Your task to perform on an android device: When is my next meeting? Image 0: 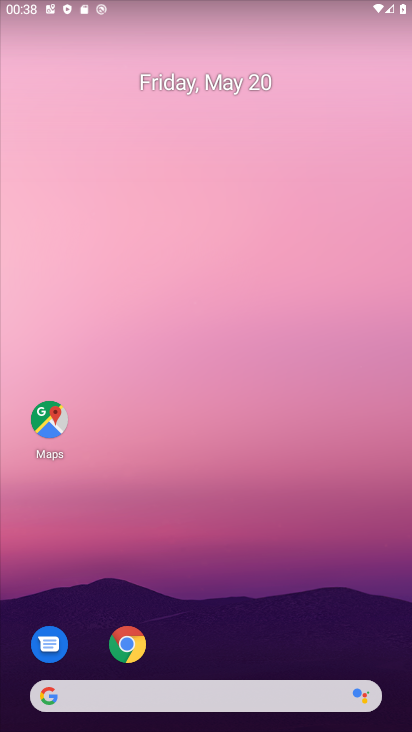
Step 0: drag from (306, 652) to (306, 56)
Your task to perform on an android device: When is my next meeting? Image 1: 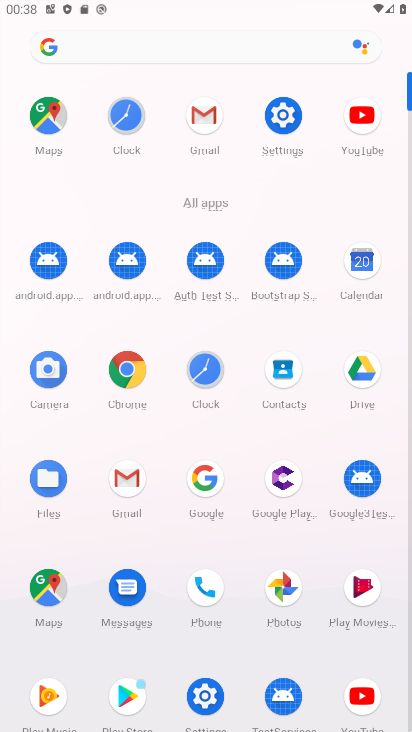
Step 1: click (353, 262)
Your task to perform on an android device: When is my next meeting? Image 2: 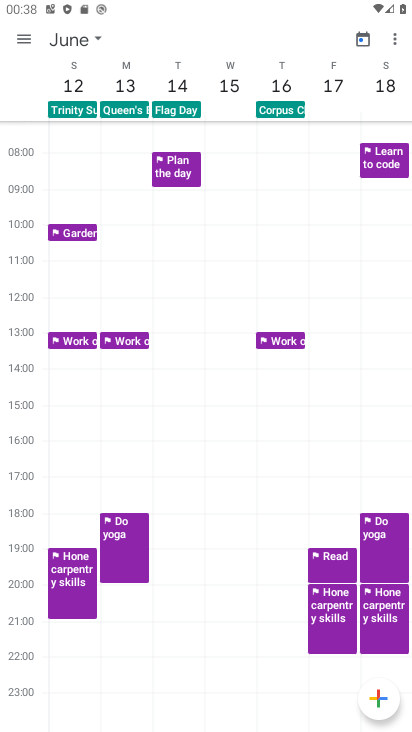
Step 2: click (364, 43)
Your task to perform on an android device: When is my next meeting? Image 3: 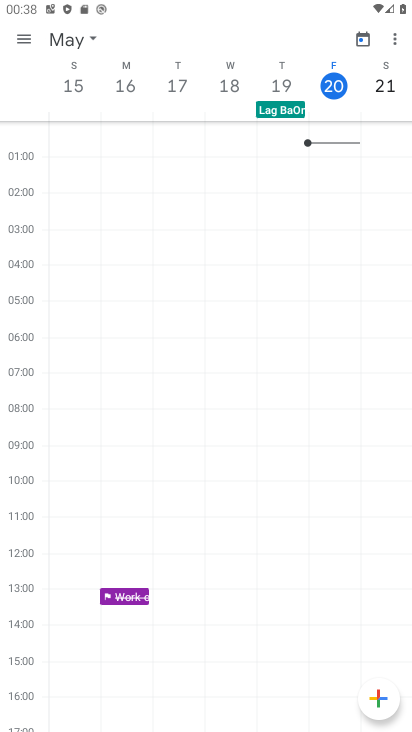
Step 3: click (21, 40)
Your task to perform on an android device: When is my next meeting? Image 4: 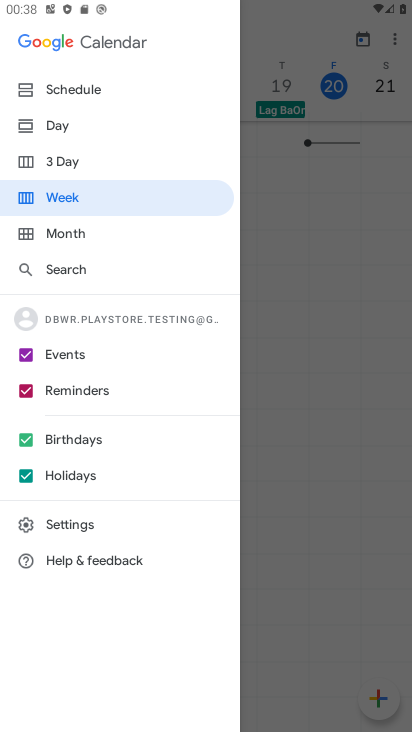
Step 4: click (45, 90)
Your task to perform on an android device: When is my next meeting? Image 5: 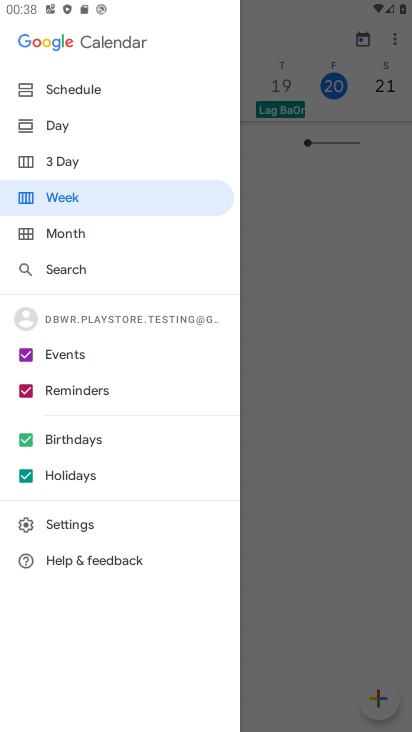
Step 5: click (45, 90)
Your task to perform on an android device: When is my next meeting? Image 6: 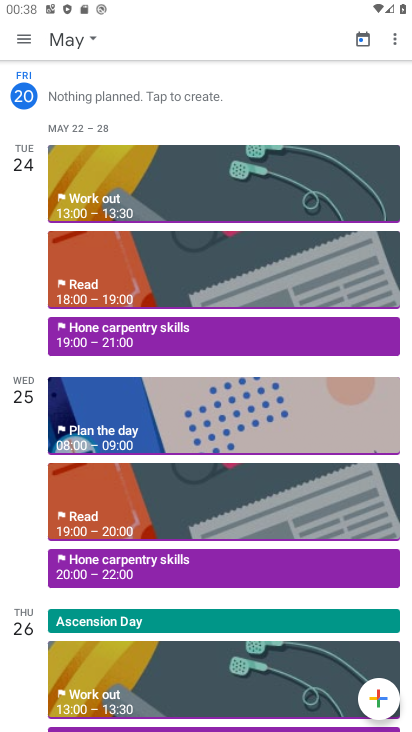
Step 6: click (167, 332)
Your task to perform on an android device: When is my next meeting? Image 7: 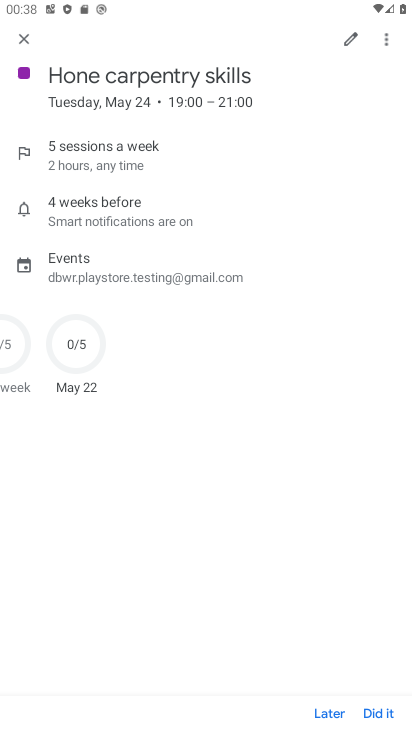
Step 7: task complete